Your task to perform on an android device: open chrome and create a bookmark for the current page Image 0: 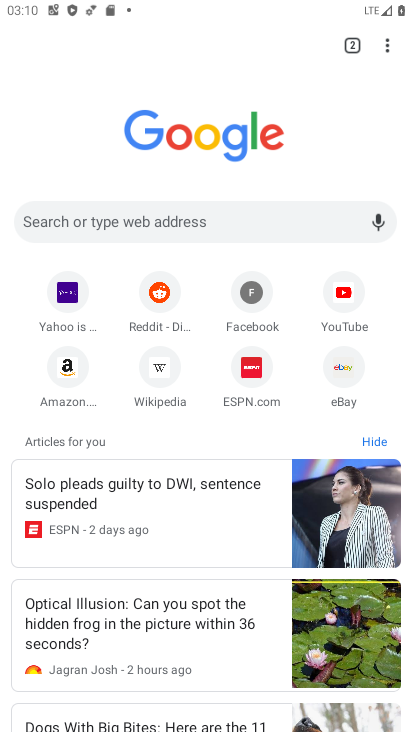
Step 0: drag from (386, 47) to (246, 43)
Your task to perform on an android device: open chrome and create a bookmark for the current page Image 1: 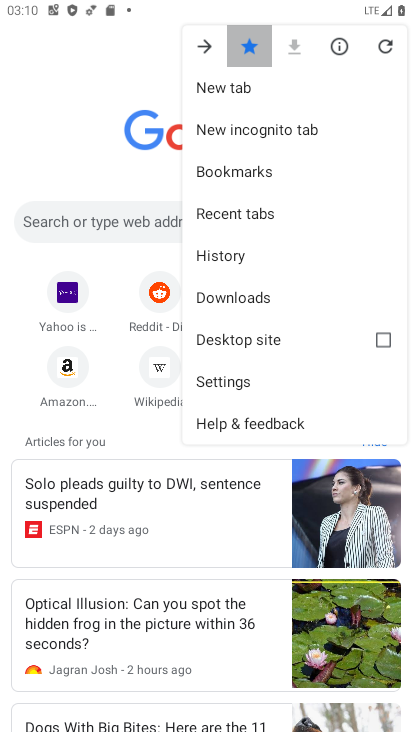
Step 1: click (248, 46)
Your task to perform on an android device: open chrome and create a bookmark for the current page Image 2: 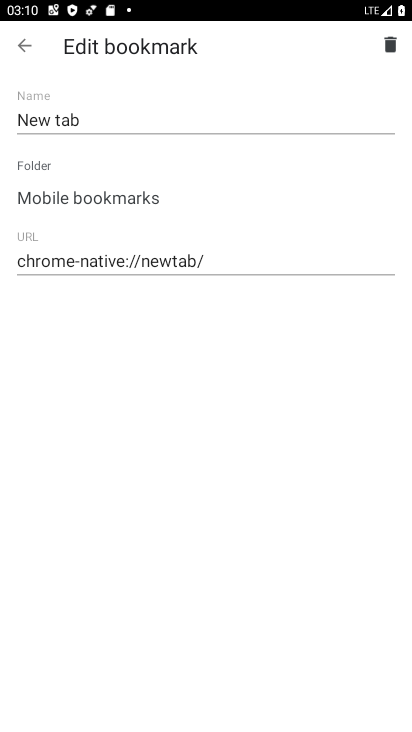
Step 2: click (15, 43)
Your task to perform on an android device: open chrome and create a bookmark for the current page Image 3: 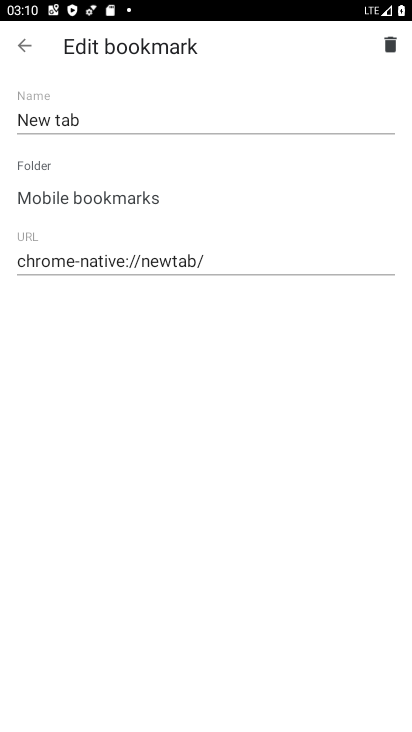
Step 3: task complete